Your task to perform on an android device: find snoozed emails in the gmail app Image 0: 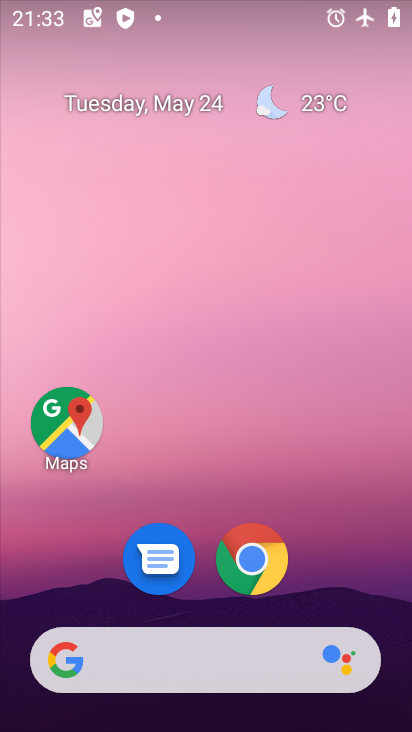
Step 0: drag from (316, 531) to (260, 114)
Your task to perform on an android device: find snoozed emails in the gmail app Image 1: 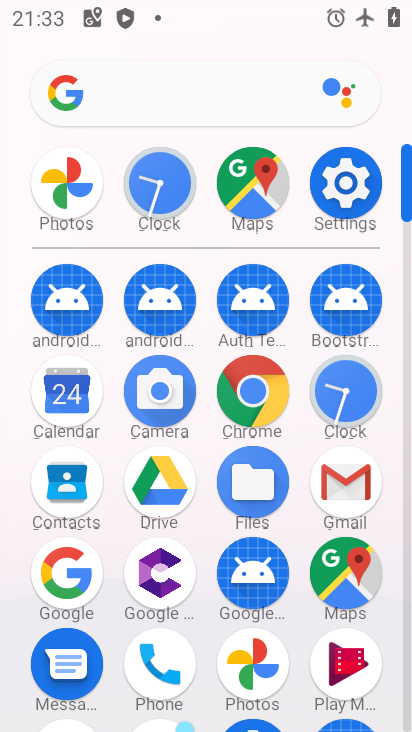
Step 1: click (336, 501)
Your task to perform on an android device: find snoozed emails in the gmail app Image 2: 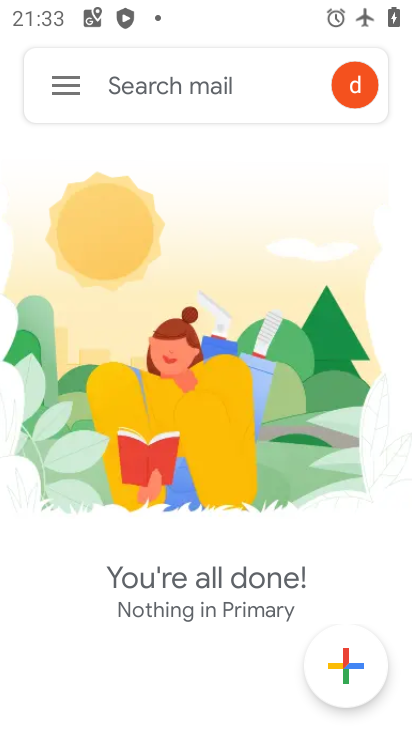
Step 2: click (66, 85)
Your task to perform on an android device: find snoozed emails in the gmail app Image 3: 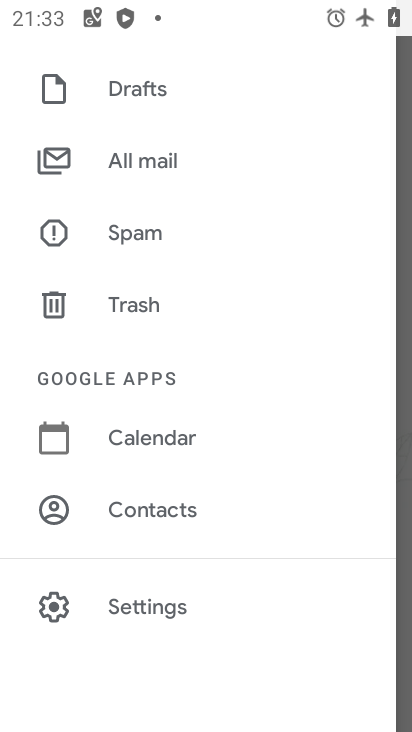
Step 3: drag from (204, 265) to (212, 662)
Your task to perform on an android device: find snoozed emails in the gmail app Image 4: 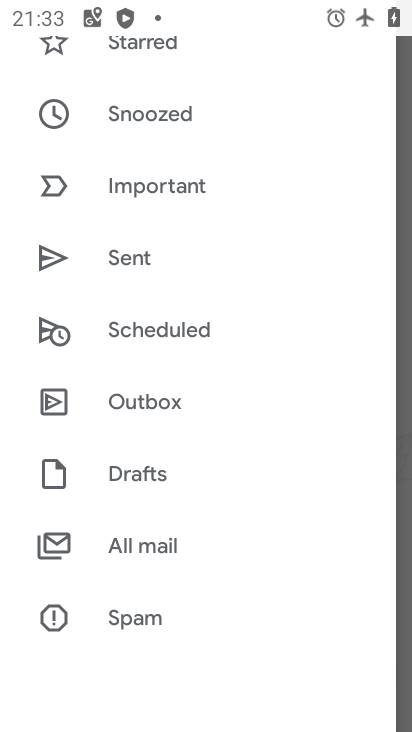
Step 4: drag from (180, 246) to (178, 515)
Your task to perform on an android device: find snoozed emails in the gmail app Image 5: 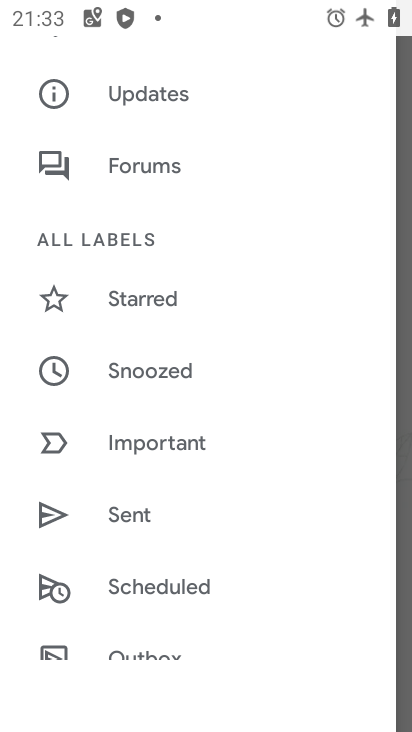
Step 5: click (158, 367)
Your task to perform on an android device: find snoozed emails in the gmail app Image 6: 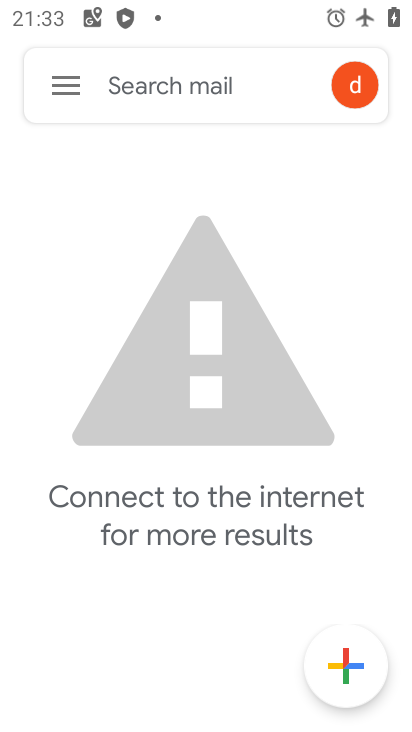
Step 6: task complete